Your task to perform on an android device: Show the shopping cart on ebay.com. Add usb-c to the cart on ebay.com, then select checkout. Image 0: 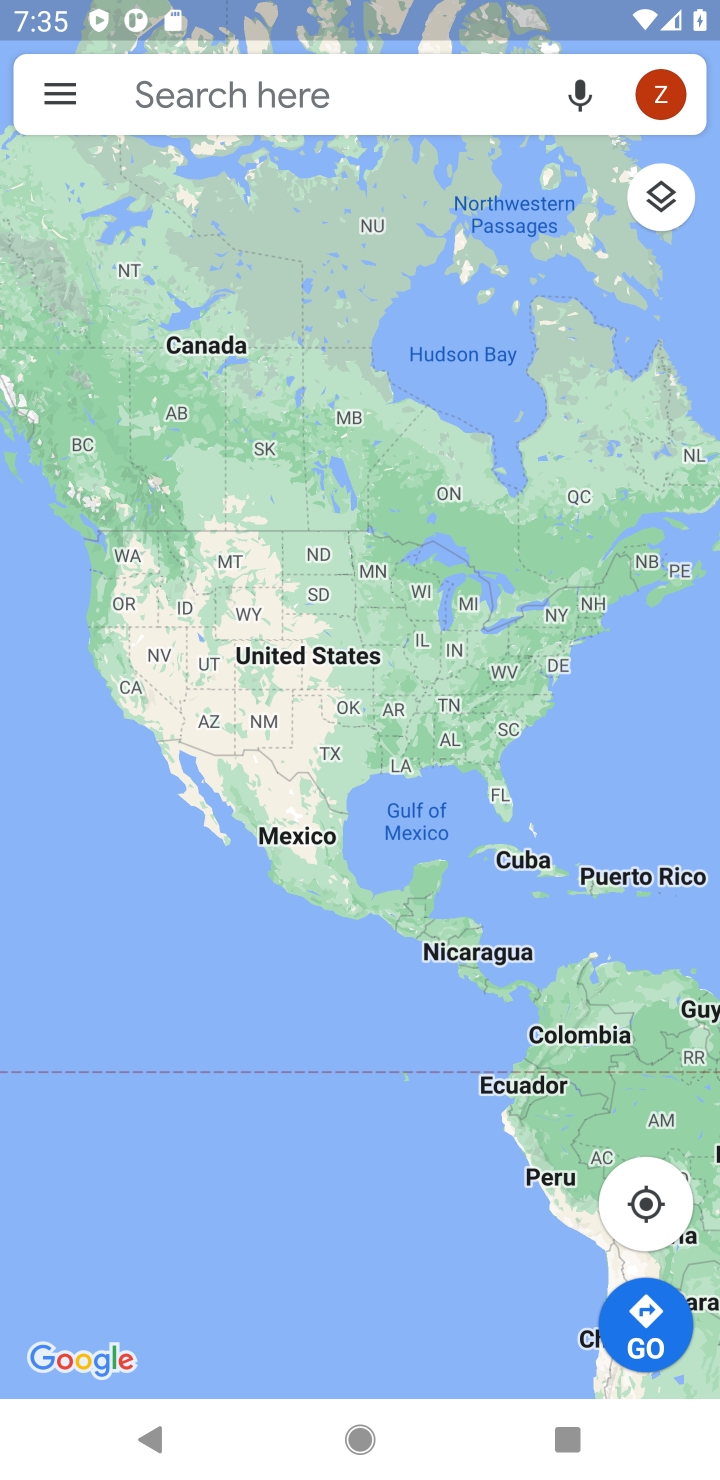
Step 0: press home button
Your task to perform on an android device: Show the shopping cart on ebay.com. Add usb-c to the cart on ebay.com, then select checkout. Image 1: 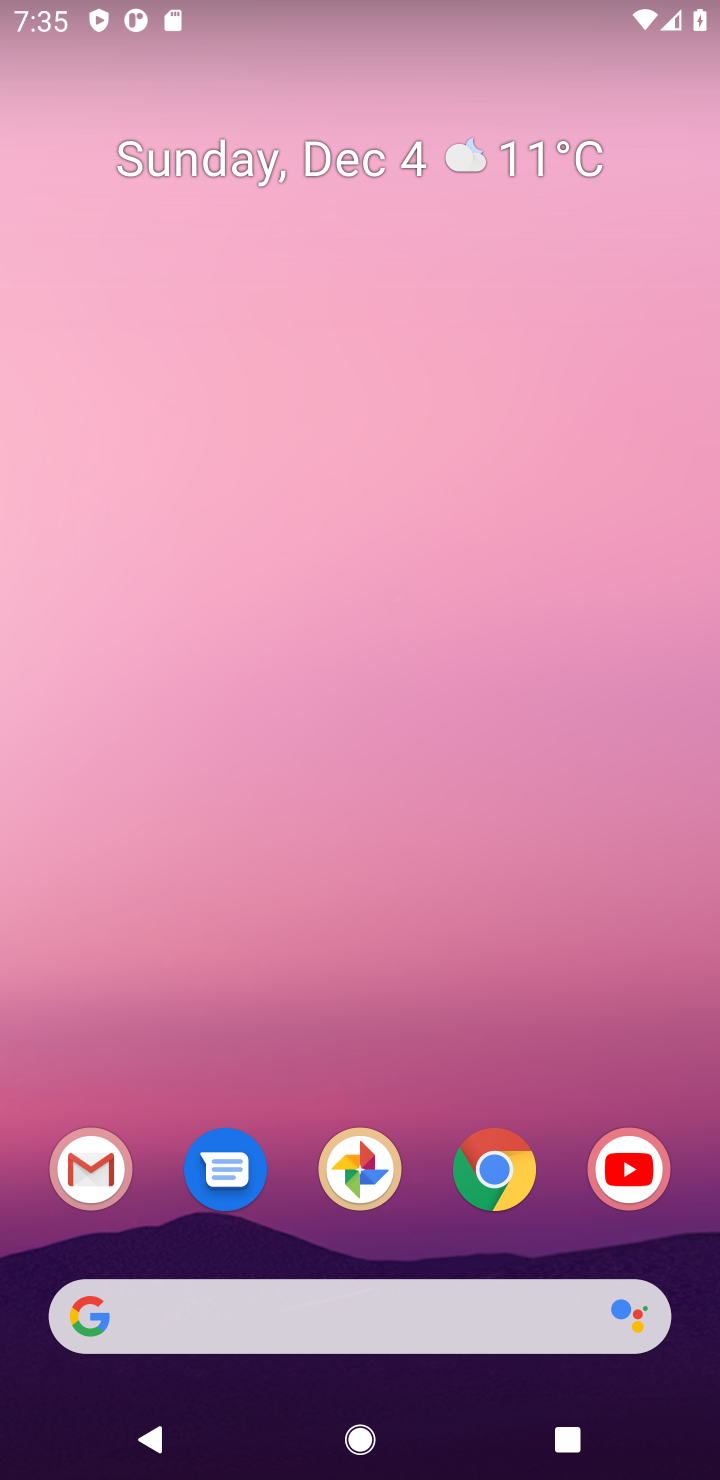
Step 1: drag from (451, 1347) to (314, 90)
Your task to perform on an android device: Show the shopping cart on ebay.com. Add usb-c to the cart on ebay.com, then select checkout. Image 2: 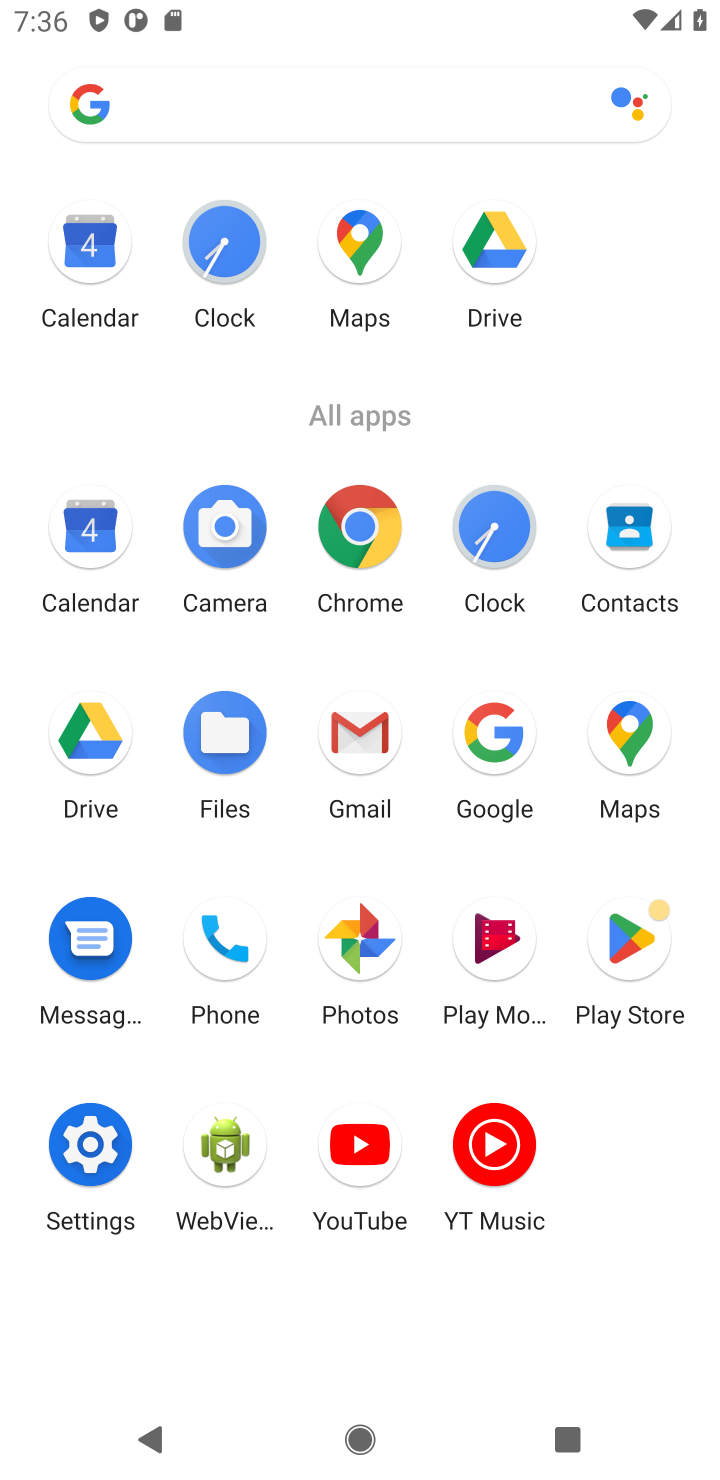
Step 2: click (372, 531)
Your task to perform on an android device: Show the shopping cart on ebay.com. Add usb-c to the cart on ebay.com, then select checkout. Image 3: 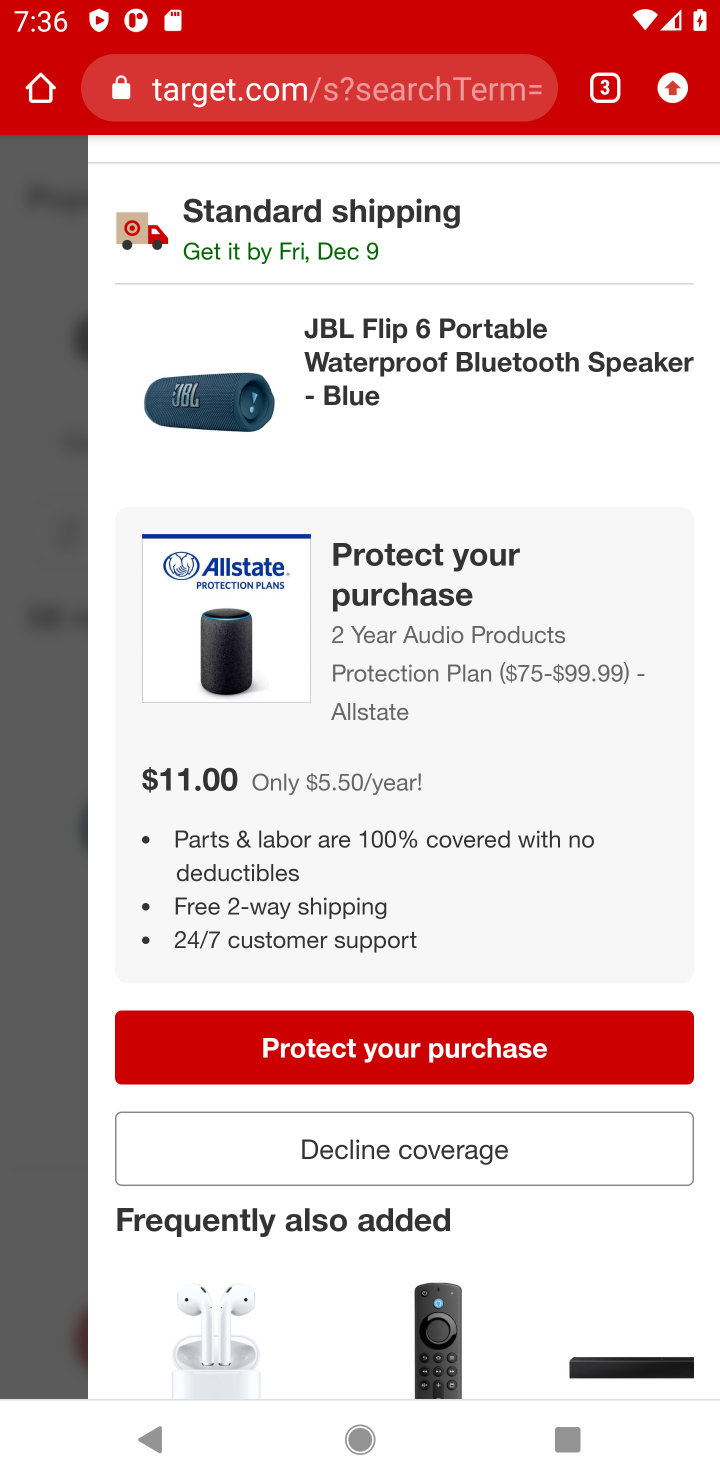
Step 3: click (397, 85)
Your task to perform on an android device: Show the shopping cart on ebay.com. Add usb-c to the cart on ebay.com, then select checkout. Image 4: 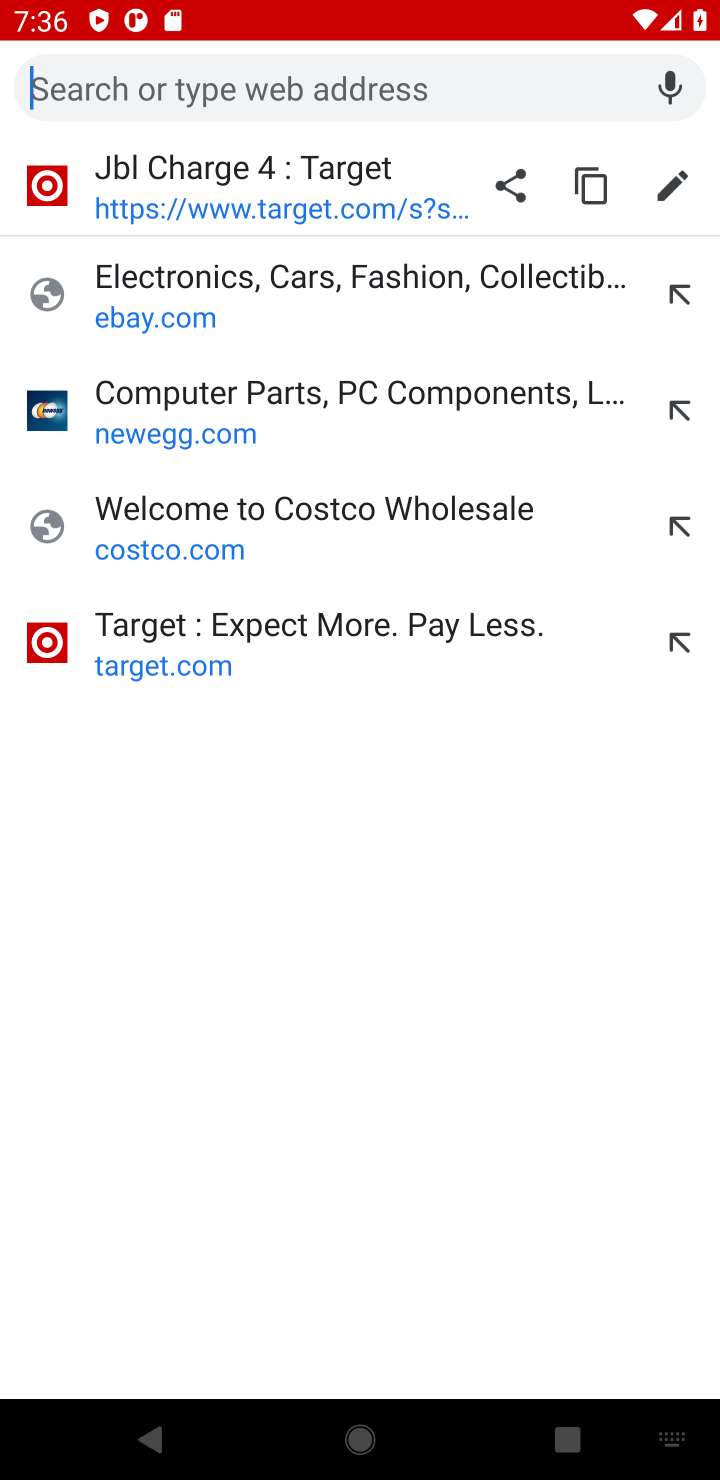
Step 4: type "ebay.com"
Your task to perform on an android device: Show the shopping cart on ebay.com. Add usb-c to the cart on ebay.com, then select checkout. Image 5: 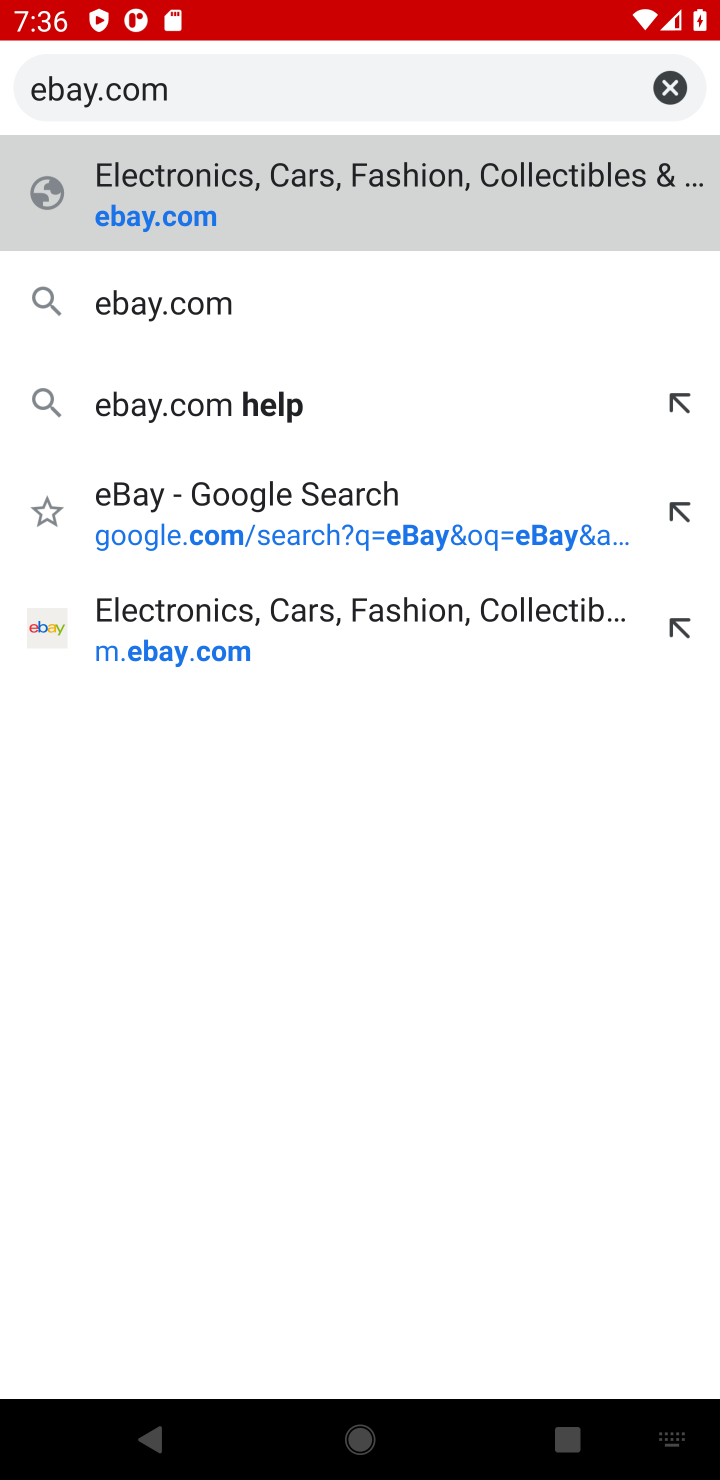
Step 5: type ""
Your task to perform on an android device: Show the shopping cart on ebay.com. Add usb-c to the cart on ebay.com, then select checkout. Image 6: 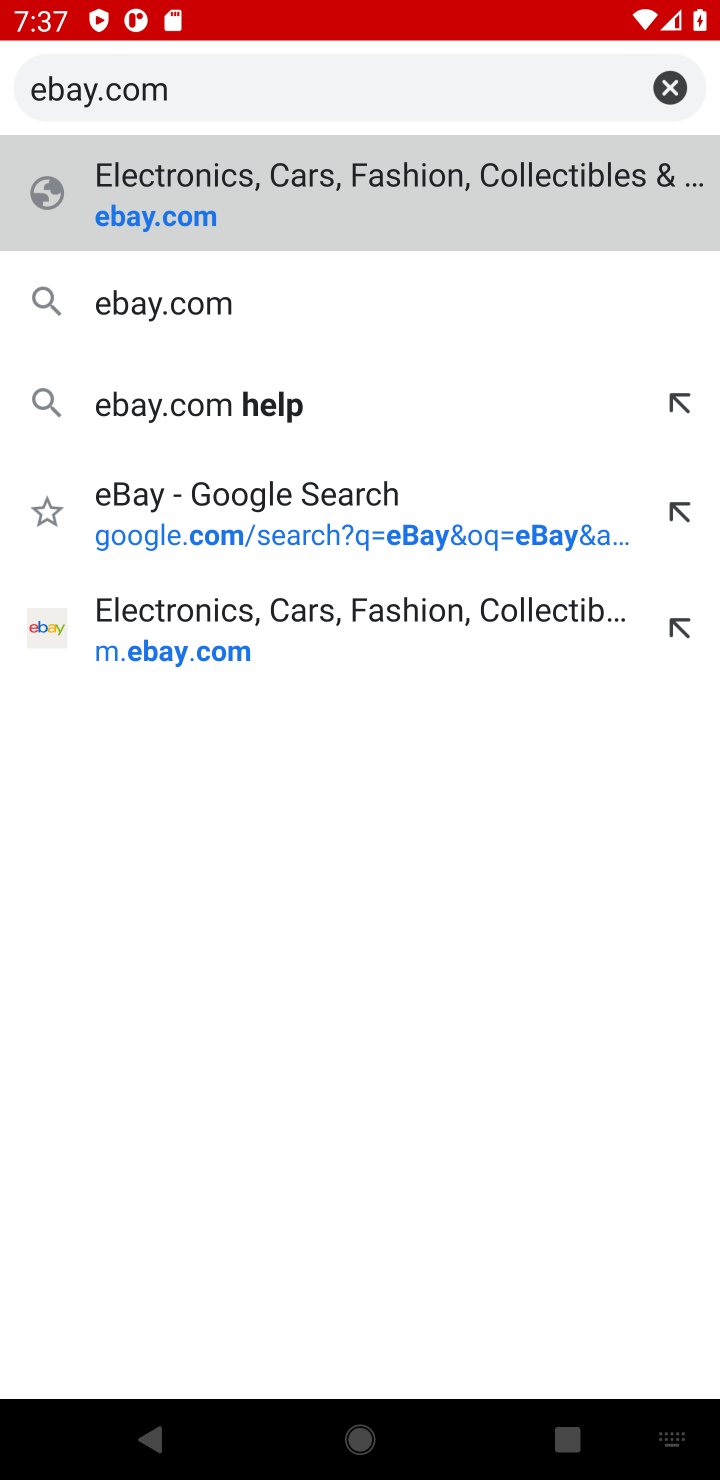
Step 6: click (159, 215)
Your task to perform on an android device: Show the shopping cart on ebay.com. Add usb-c to the cart on ebay.com, then select checkout. Image 7: 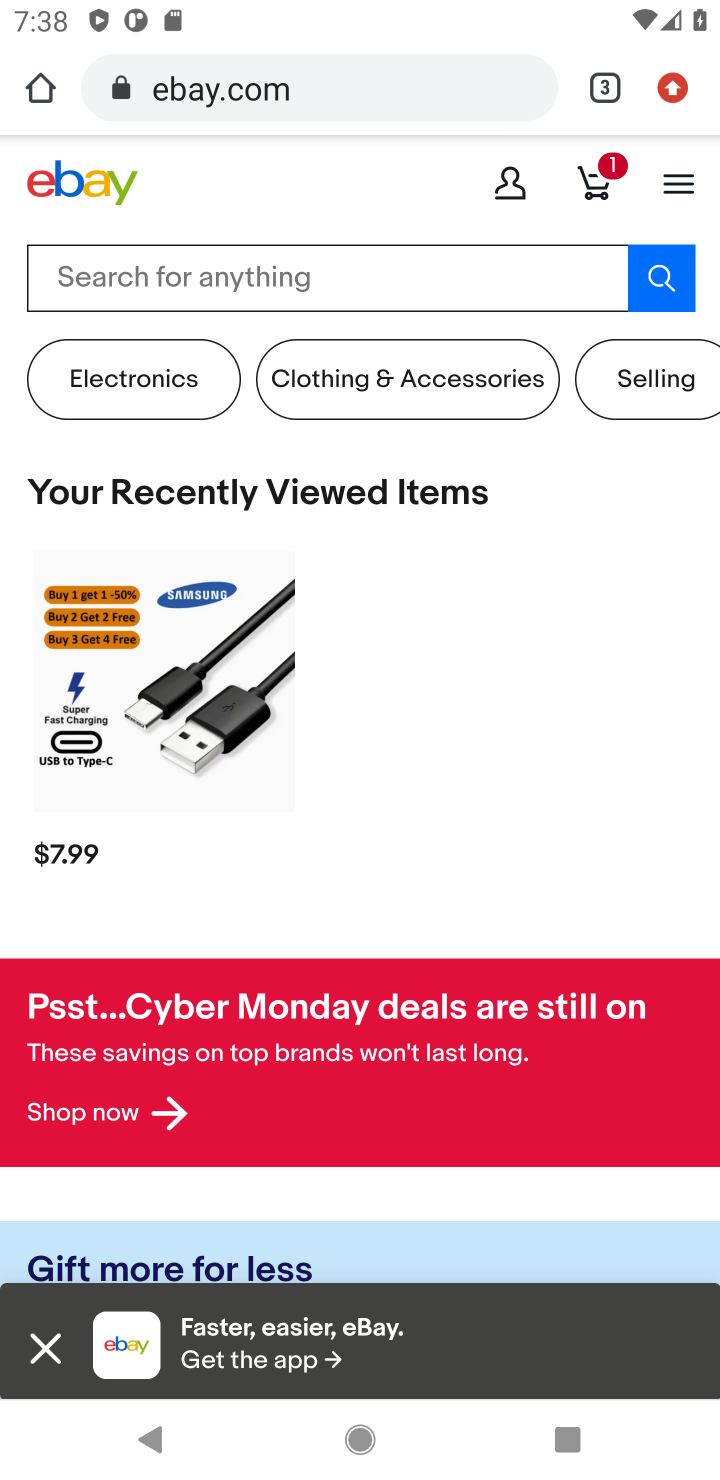
Step 7: type "usb-c"
Your task to perform on an android device: Show the shopping cart on ebay.com. Add usb-c to the cart on ebay.com, then select checkout. Image 8: 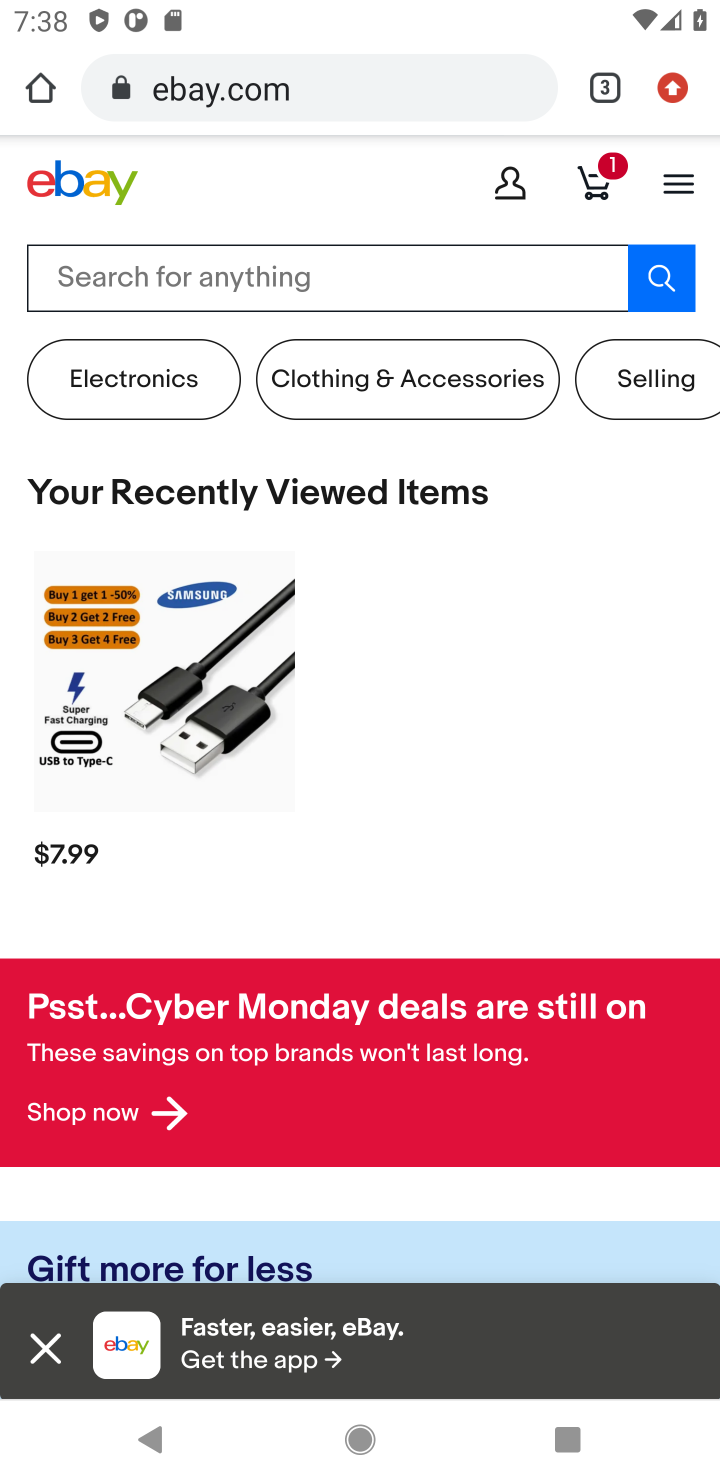
Step 8: click (245, 262)
Your task to perform on an android device: Show the shopping cart on ebay.com. Add usb-c to the cart on ebay.com, then select checkout. Image 9: 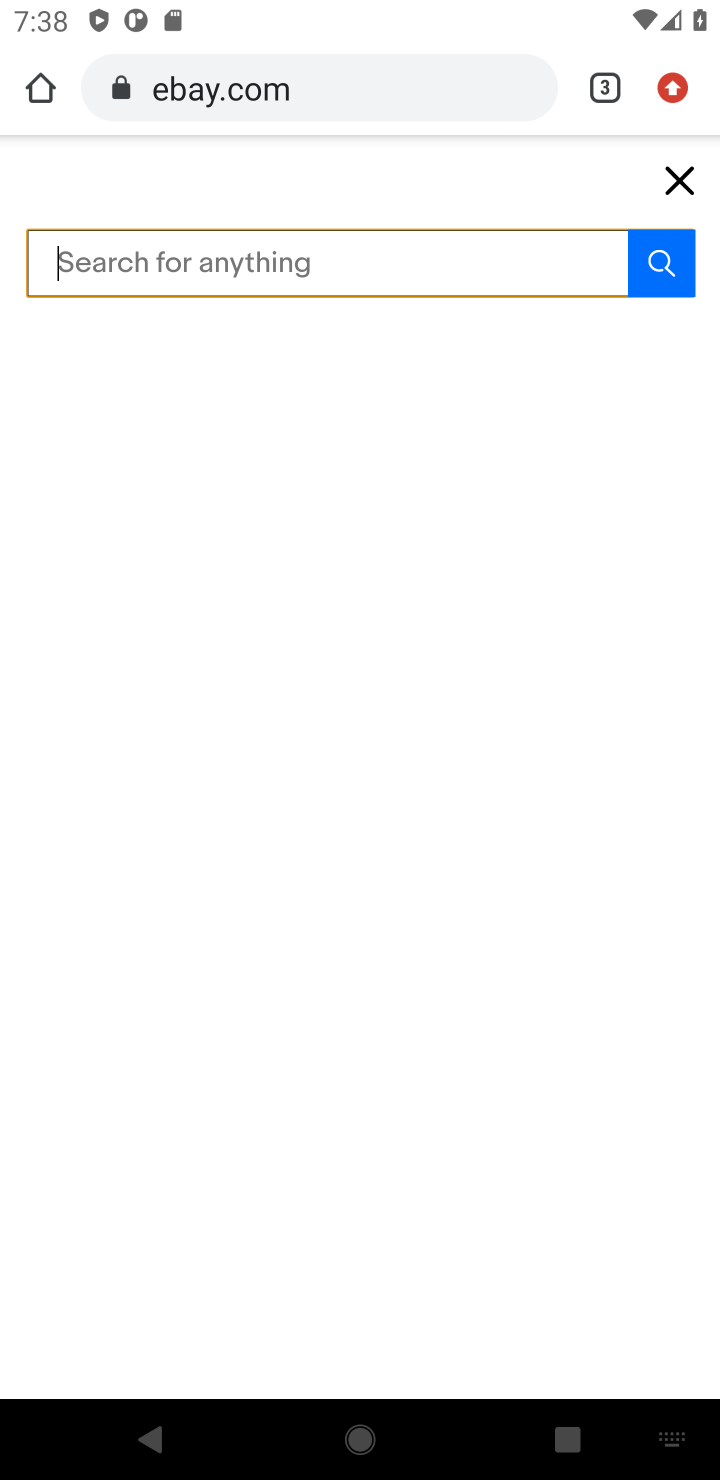
Step 9: type "usb-c"
Your task to perform on an android device: Show the shopping cart on ebay.com. Add usb-c to the cart on ebay.com, then select checkout. Image 10: 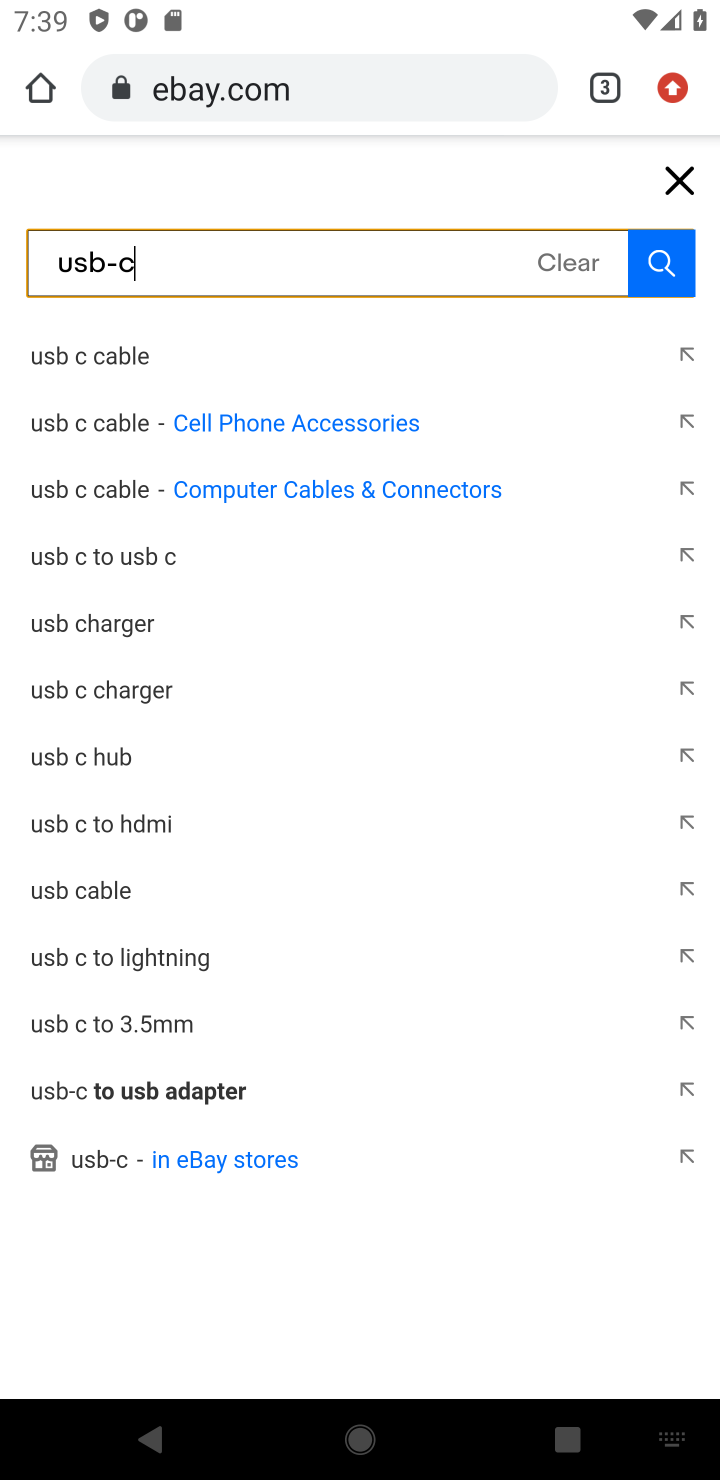
Step 10: click (657, 262)
Your task to perform on an android device: Show the shopping cart on ebay.com. Add usb-c to the cart on ebay.com, then select checkout. Image 11: 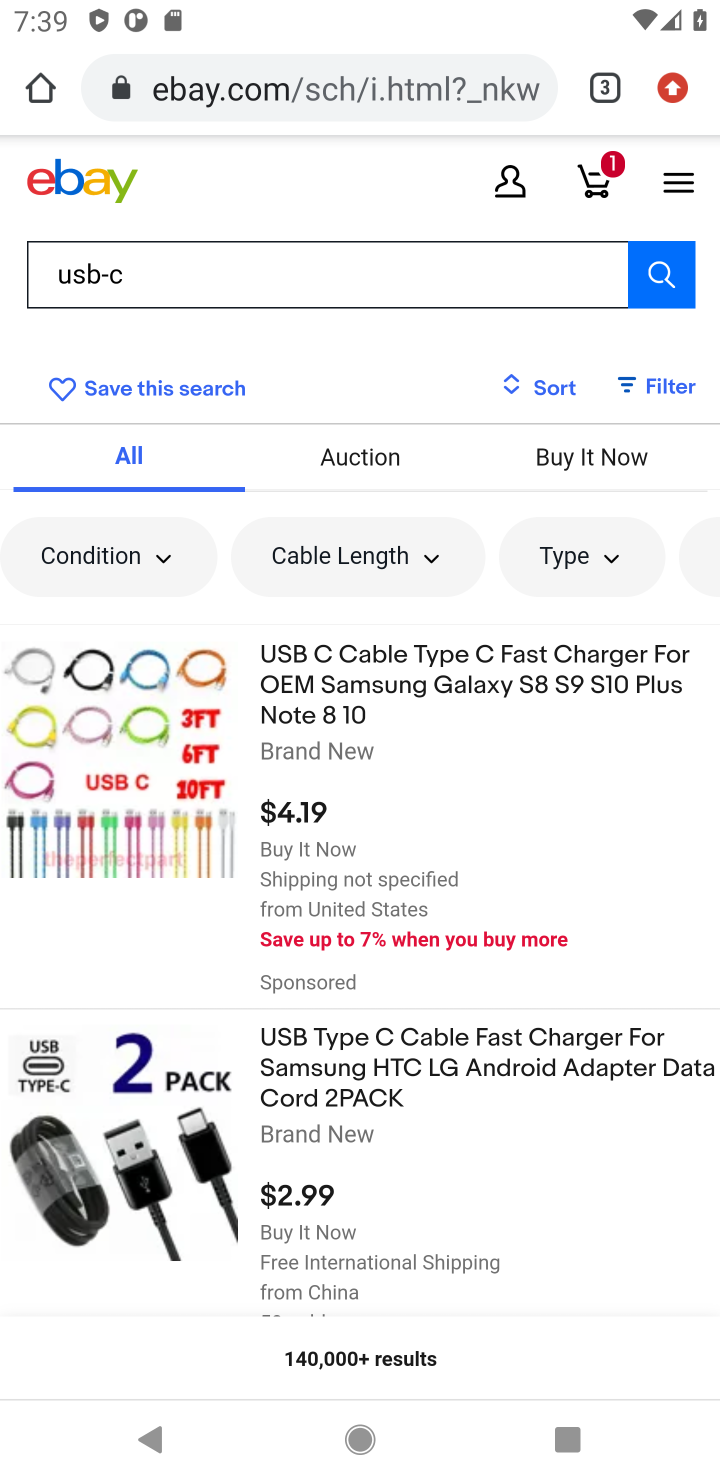
Step 11: click (178, 755)
Your task to perform on an android device: Show the shopping cart on ebay.com. Add usb-c to the cart on ebay.com, then select checkout. Image 12: 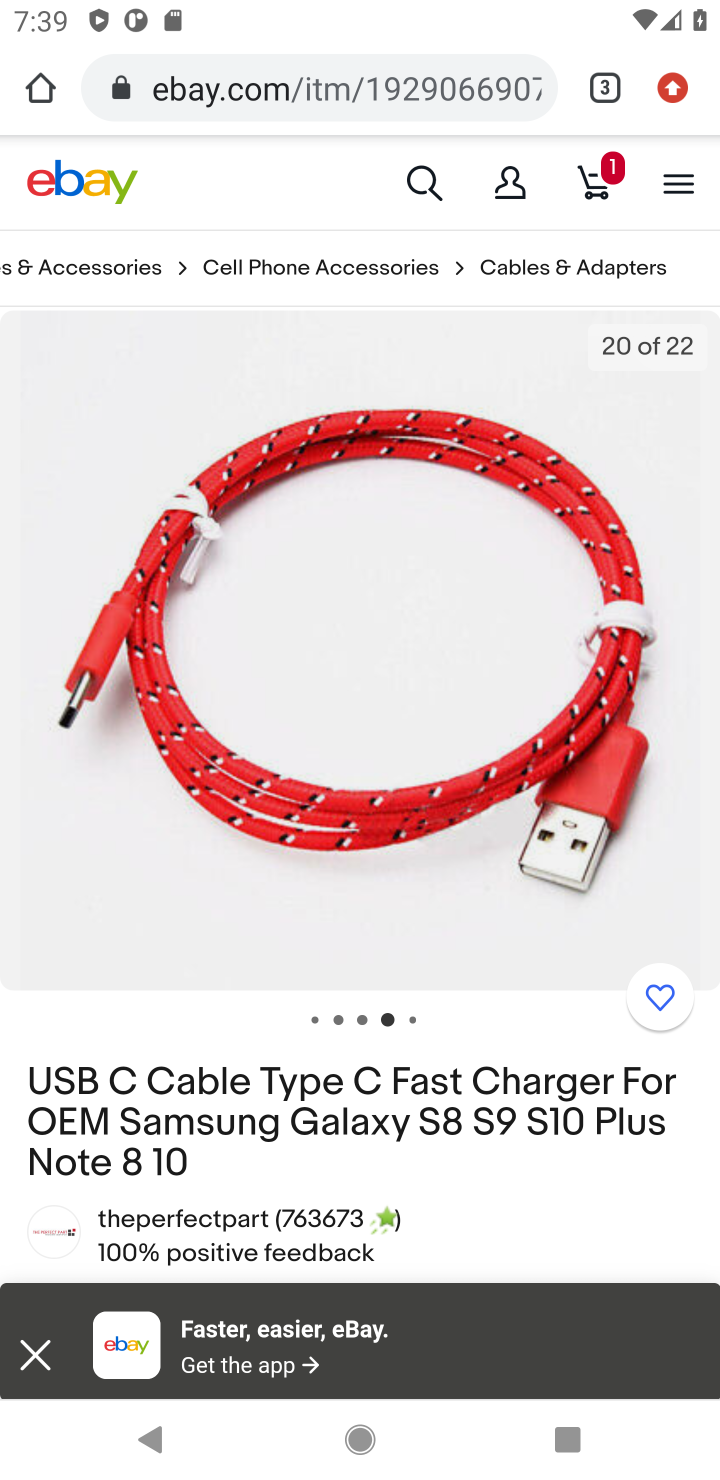
Step 12: drag from (326, 1167) to (379, 319)
Your task to perform on an android device: Show the shopping cart on ebay.com. Add usb-c to the cart on ebay.com, then select checkout. Image 13: 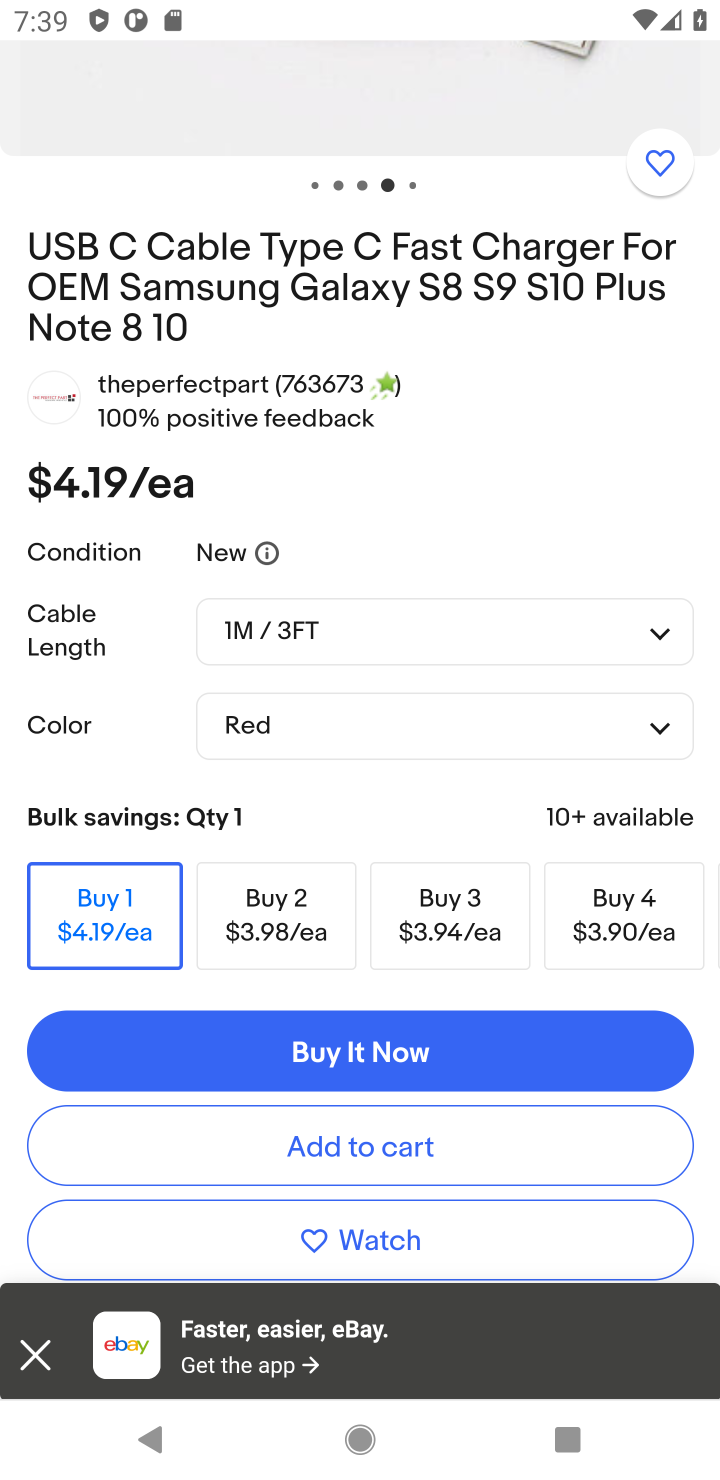
Step 13: click (405, 1147)
Your task to perform on an android device: Show the shopping cart on ebay.com. Add usb-c to the cart on ebay.com, then select checkout. Image 14: 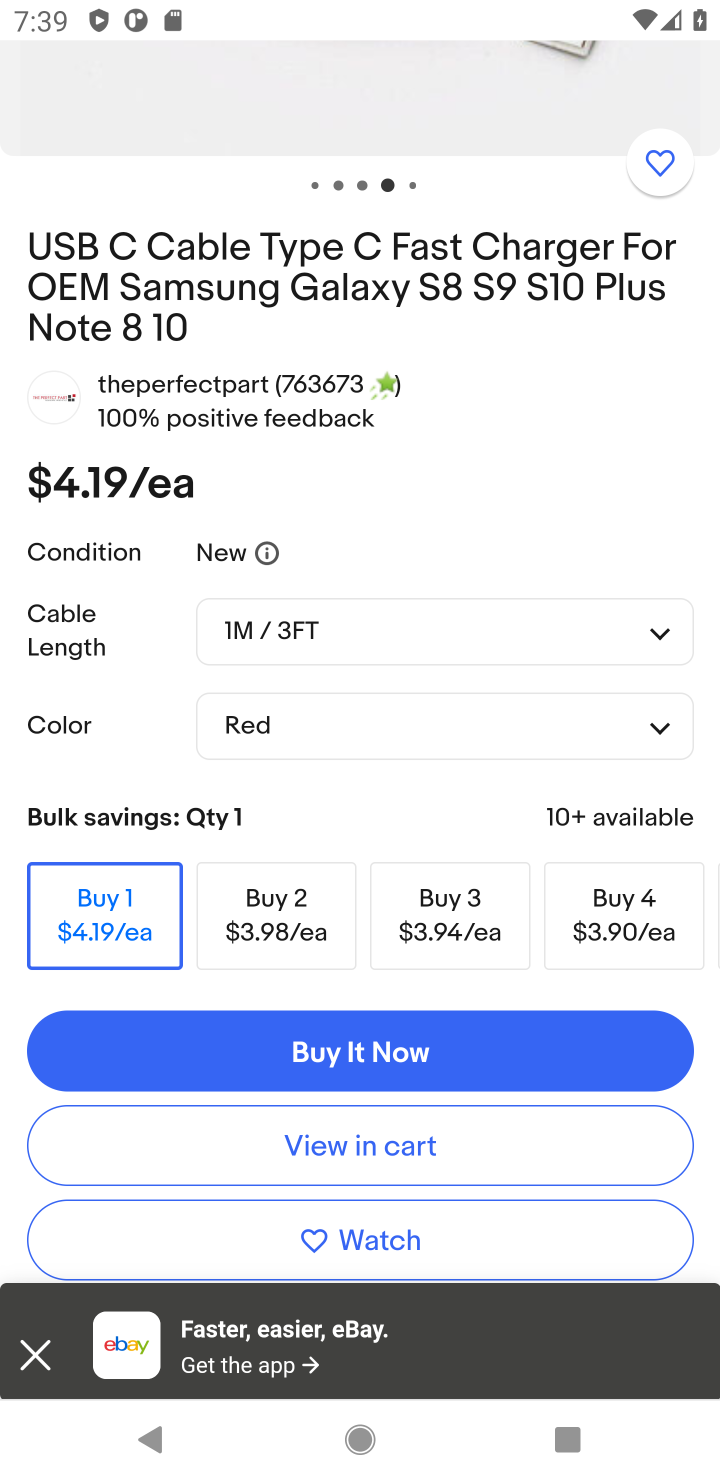
Step 14: task complete